Your task to perform on an android device: see sites visited before in the chrome app Image 0: 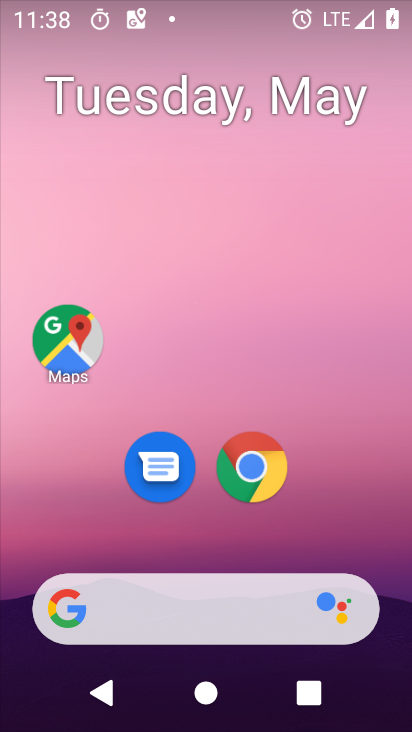
Step 0: drag from (331, 377) to (249, 47)
Your task to perform on an android device: see sites visited before in the chrome app Image 1: 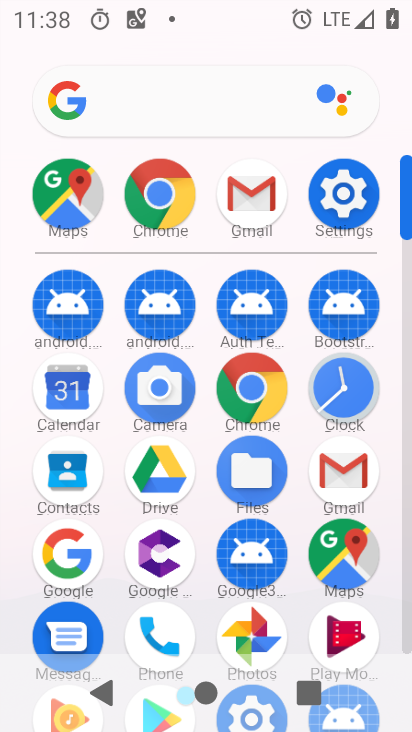
Step 1: drag from (8, 550) to (6, 228)
Your task to perform on an android device: see sites visited before in the chrome app Image 2: 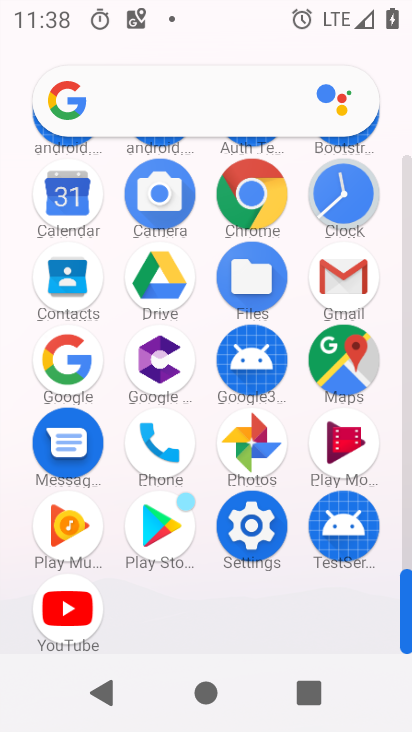
Step 2: click (249, 191)
Your task to perform on an android device: see sites visited before in the chrome app Image 3: 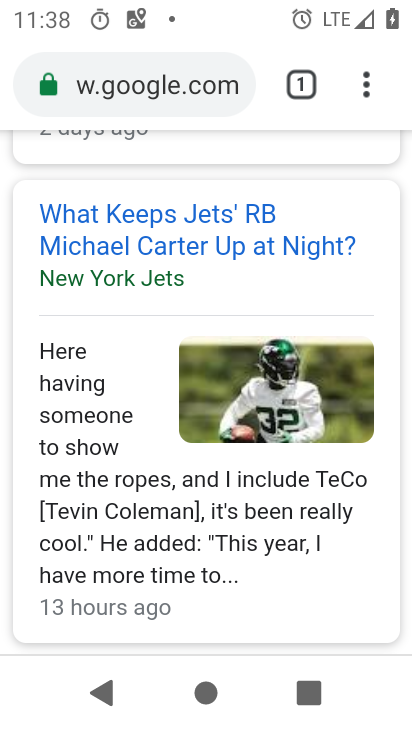
Step 3: task complete